Your task to perform on an android device: empty trash in google photos Image 0: 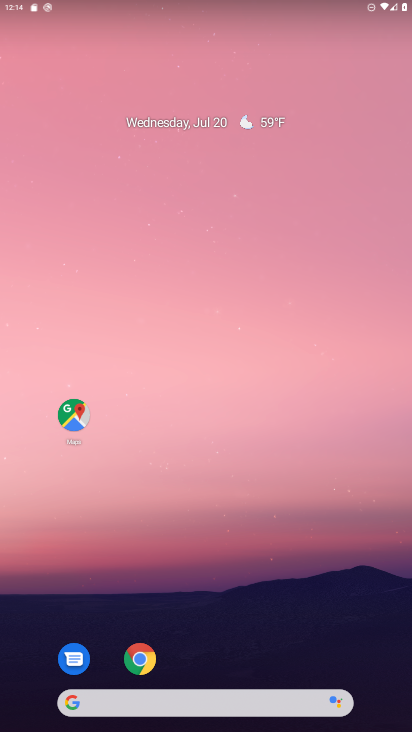
Step 0: drag from (306, 592) to (289, 67)
Your task to perform on an android device: empty trash in google photos Image 1: 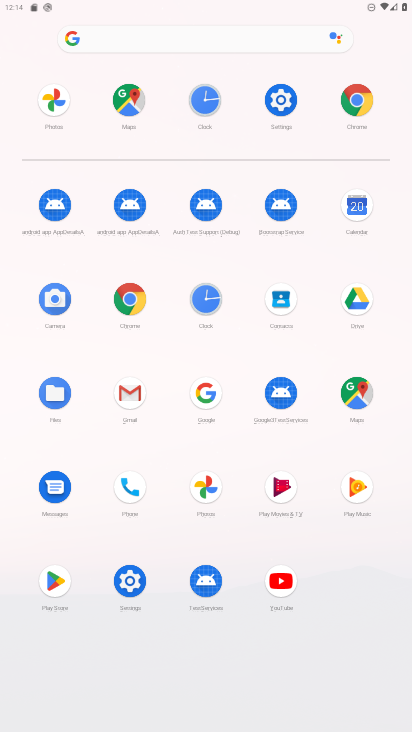
Step 1: click (216, 483)
Your task to perform on an android device: empty trash in google photos Image 2: 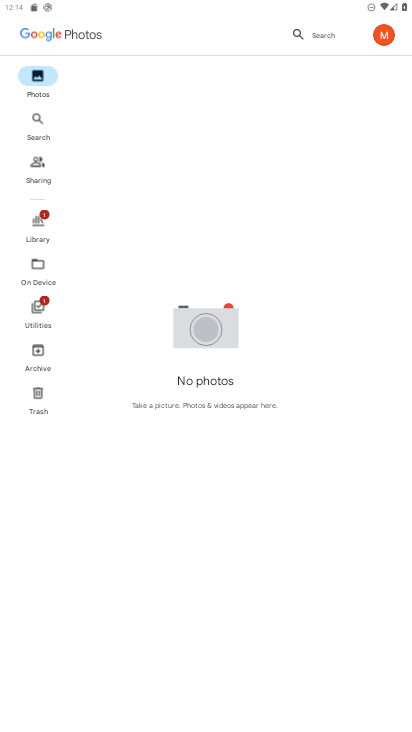
Step 2: click (23, 392)
Your task to perform on an android device: empty trash in google photos Image 3: 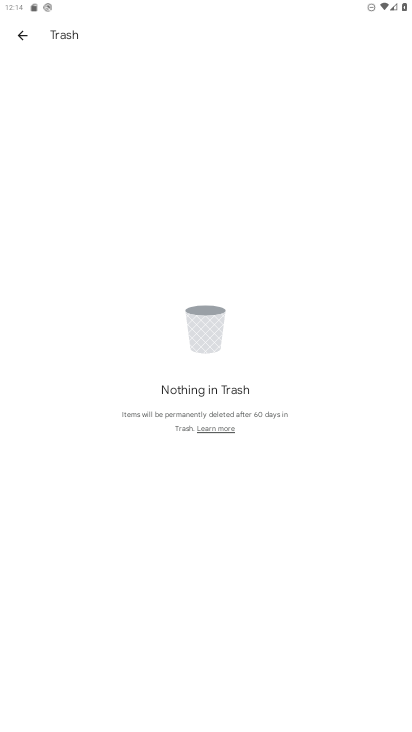
Step 3: task complete